Your task to perform on an android device: toggle data saver in the chrome app Image 0: 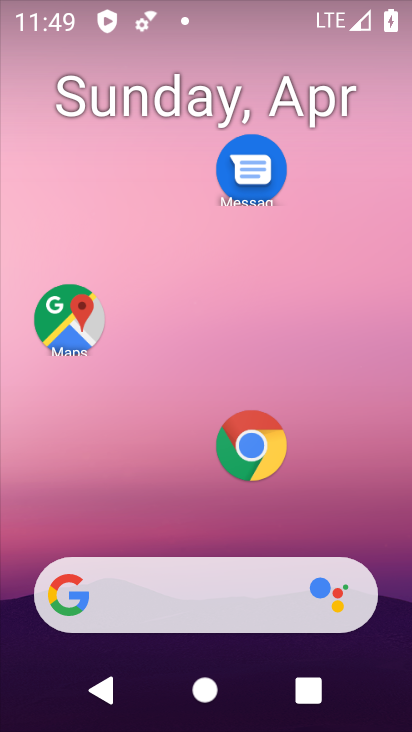
Step 0: click (261, 460)
Your task to perform on an android device: toggle data saver in the chrome app Image 1: 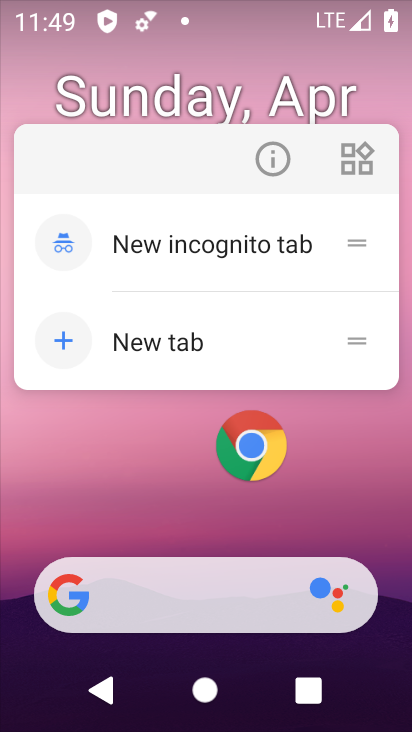
Step 1: click (251, 460)
Your task to perform on an android device: toggle data saver in the chrome app Image 2: 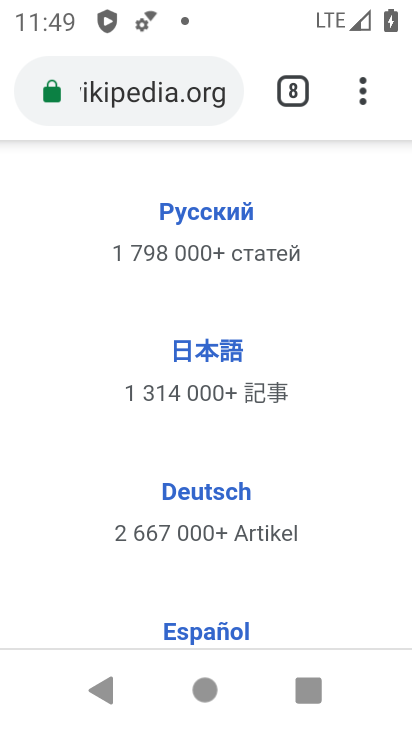
Step 2: drag from (359, 100) to (180, 467)
Your task to perform on an android device: toggle data saver in the chrome app Image 3: 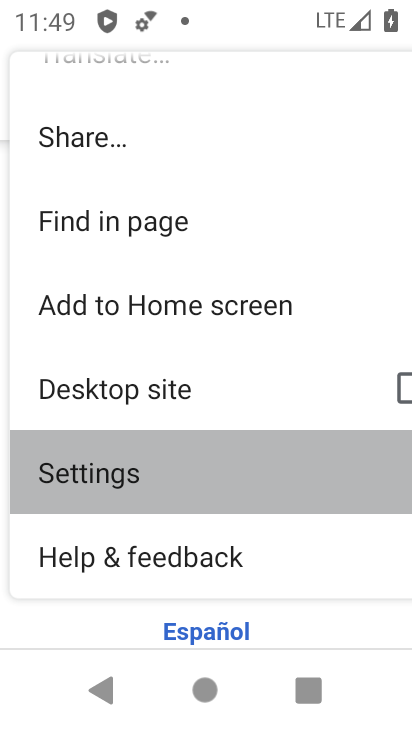
Step 3: click (177, 467)
Your task to perform on an android device: toggle data saver in the chrome app Image 4: 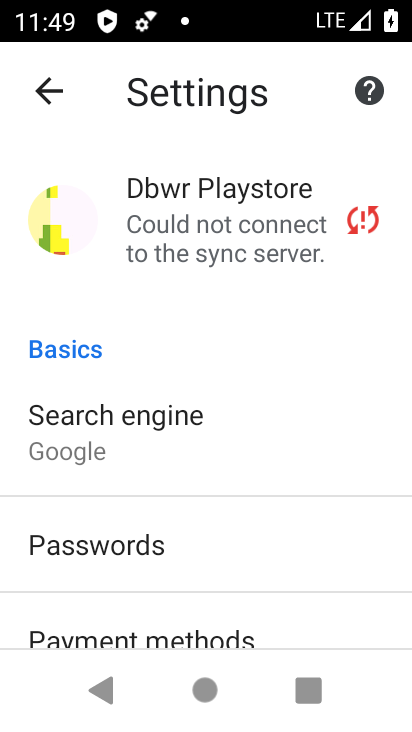
Step 4: drag from (212, 559) to (411, 108)
Your task to perform on an android device: toggle data saver in the chrome app Image 5: 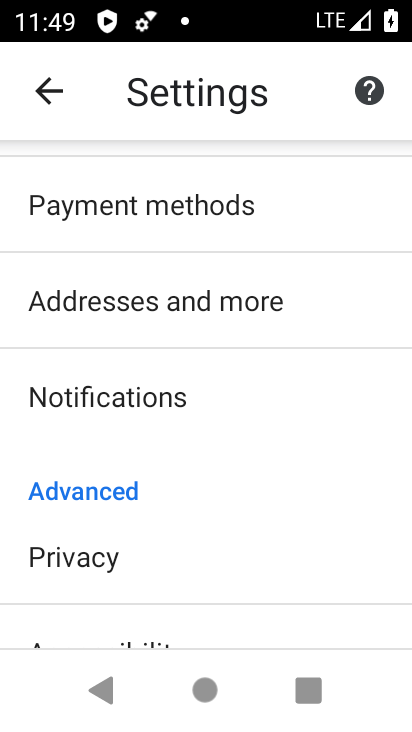
Step 5: drag from (185, 599) to (397, 69)
Your task to perform on an android device: toggle data saver in the chrome app Image 6: 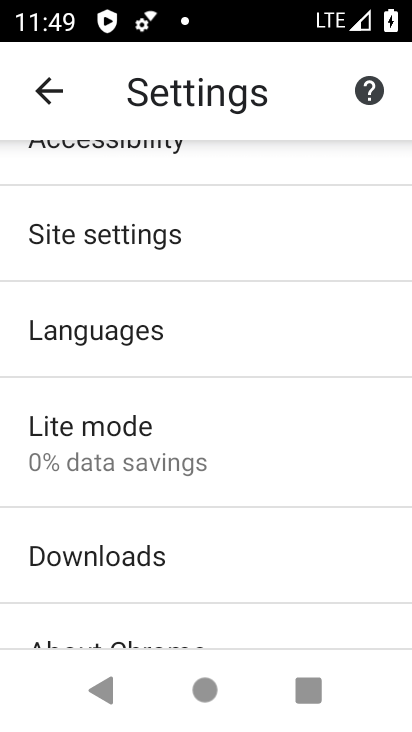
Step 6: click (149, 456)
Your task to perform on an android device: toggle data saver in the chrome app Image 7: 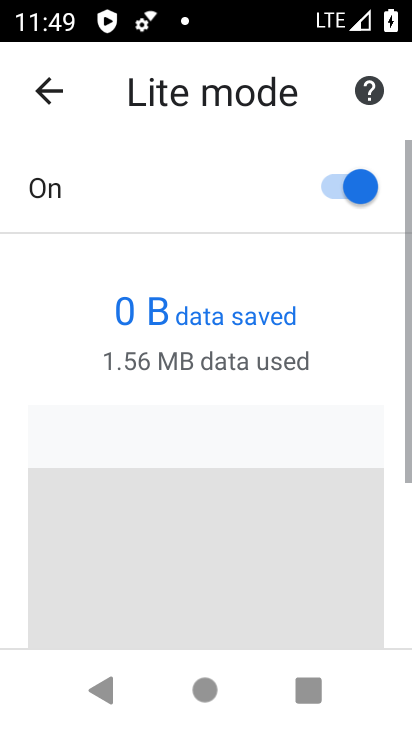
Step 7: click (333, 192)
Your task to perform on an android device: toggle data saver in the chrome app Image 8: 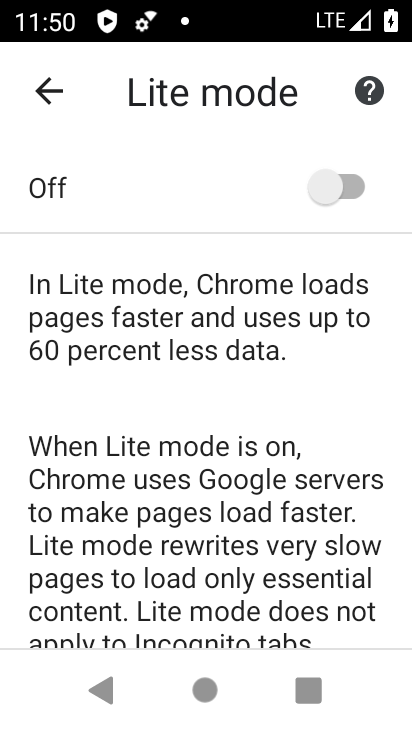
Step 8: task complete